Your task to perform on an android device: Open internet settings Image 0: 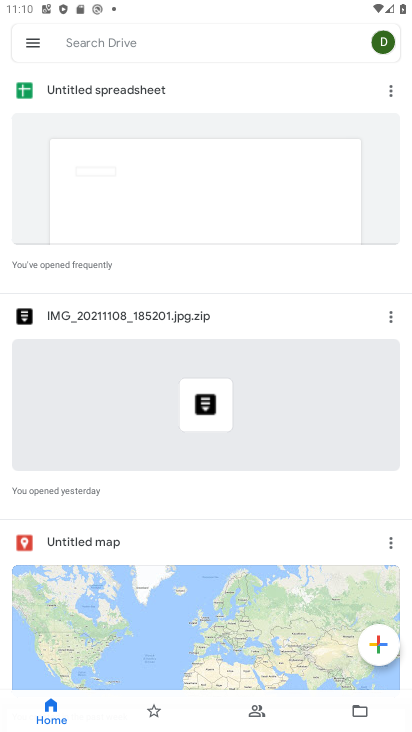
Step 0: press home button
Your task to perform on an android device: Open internet settings Image 1: 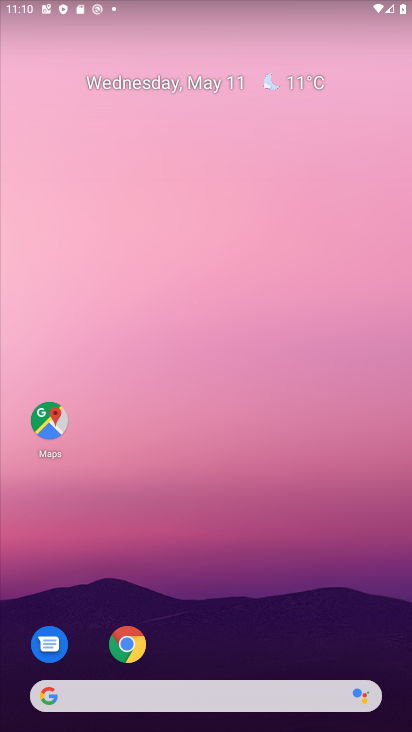
Step 1: drag from (208, 656) to (196, 104)
Your task to perform on an android device: Open internet settings Image 2: 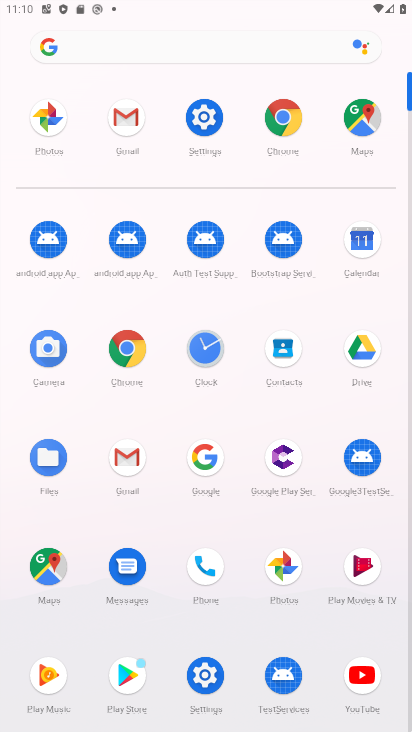
Step 2: click (202, 116)
Your task to perform on an android device: Open internet settings Image 3: 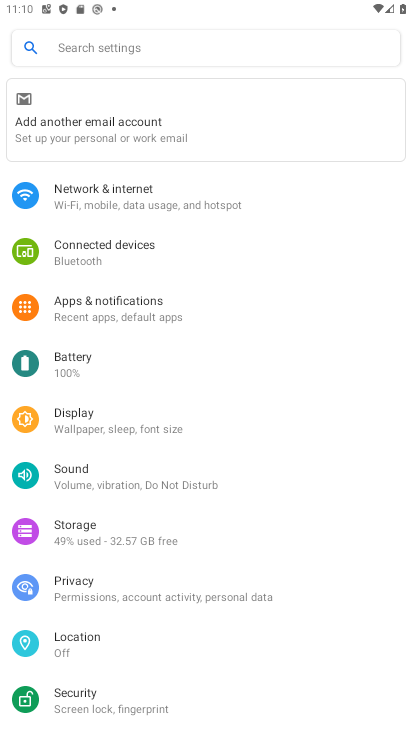
Step 3: click (157, 187)
Your task to perform on an android device: Open internet settings Image 4: 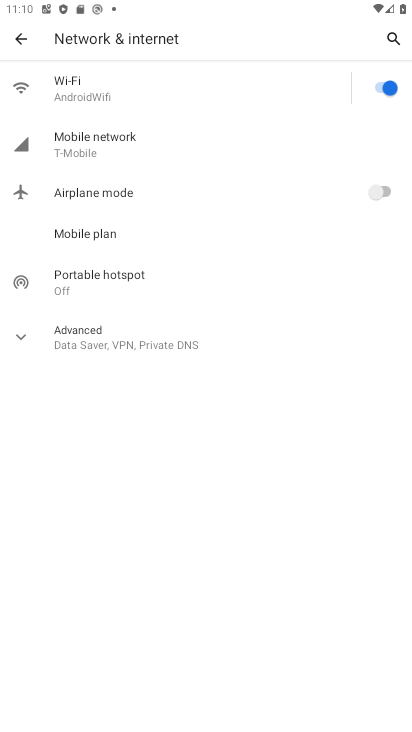
Step 4: click (15, 330)
Your task to perform on an android device: Open internet settings Image 5: 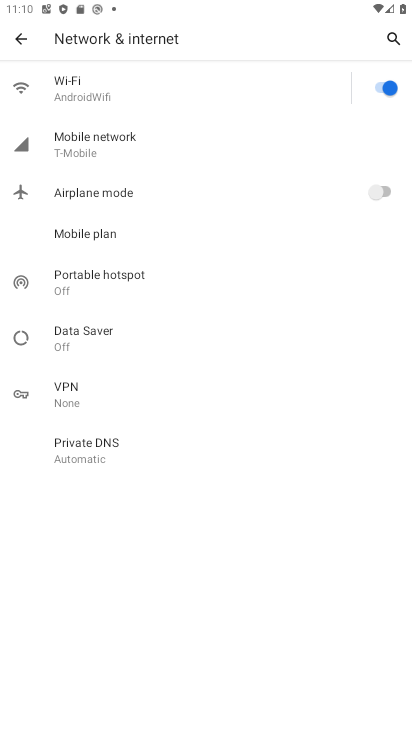
Step 5: task complete